Your task to perform on an android device: visit the assistant section in the google photos Image 0: 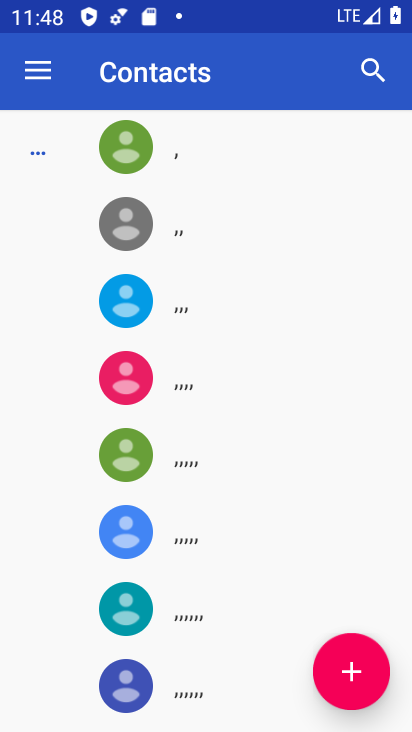
Step 0: press home button
Your task to perform on an android device: visit the assistant section in the google photos Image 1: 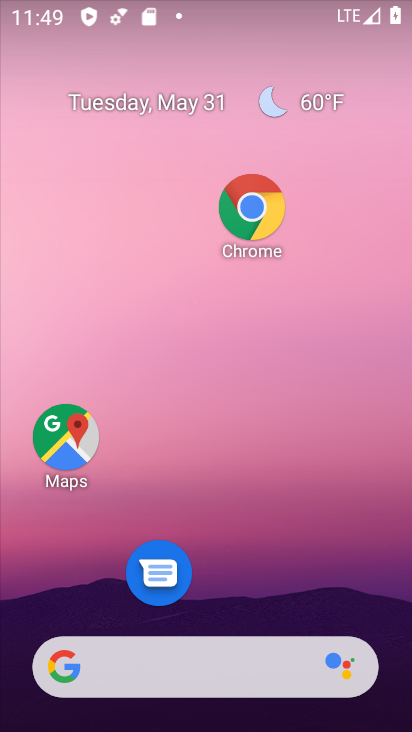
Step 1: drag from (229, 592) to (161, 171)
Your task to perform on an android device: visit the assistant section in the google photos Image 2: 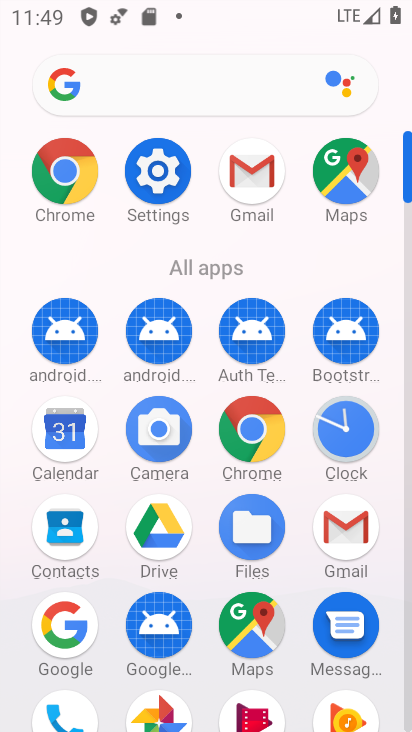
Step 2: drag from (194, 603) to (186, 379)
Your task to perform on an android device: visit the assistant section in the google photos Image 3: 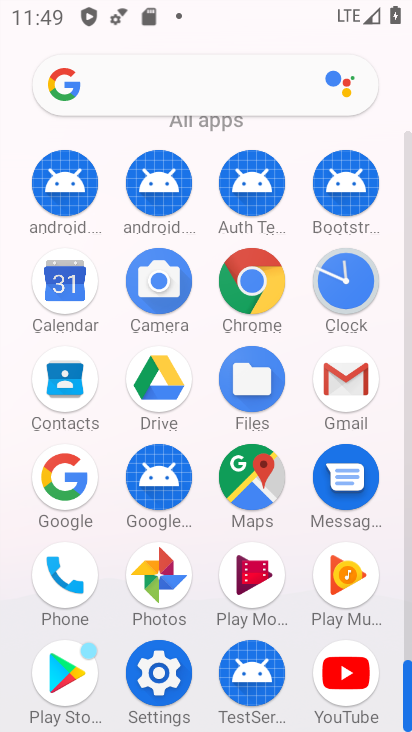
Step 3: click (163, 553)
Your task to perform on an android device: visit the assistant section in the google photos Image 4: 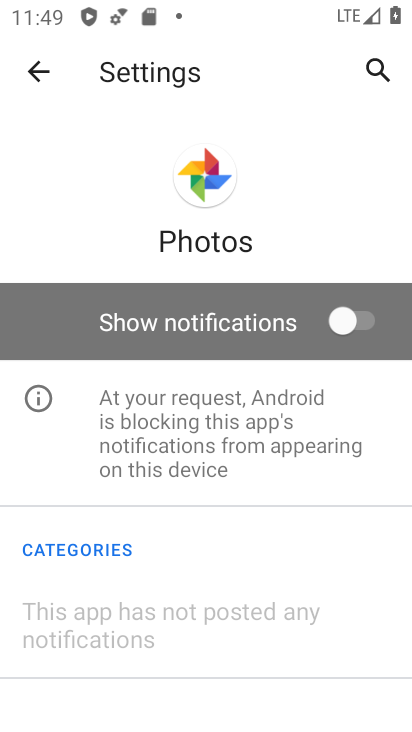
Step 4: click (35, 67)
Your task to perform on an android device: visit the assistant section in the google photos Image 5: 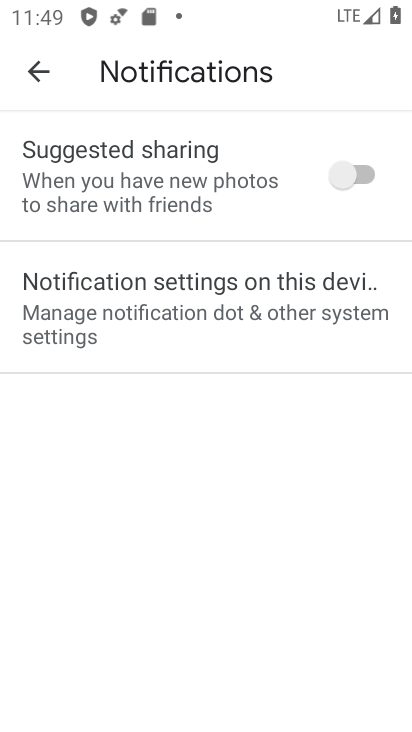
Step 5: click (34, 78)
Your task to perform on an android device: visit the assistant section in the google photos Image 6: 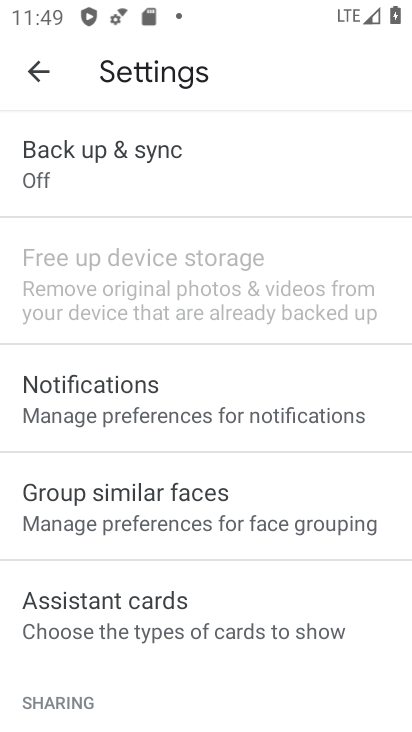
Step 6: click (34, 76)
Your task to perform on an android device: visit the assistant section in the google photos Image 7: 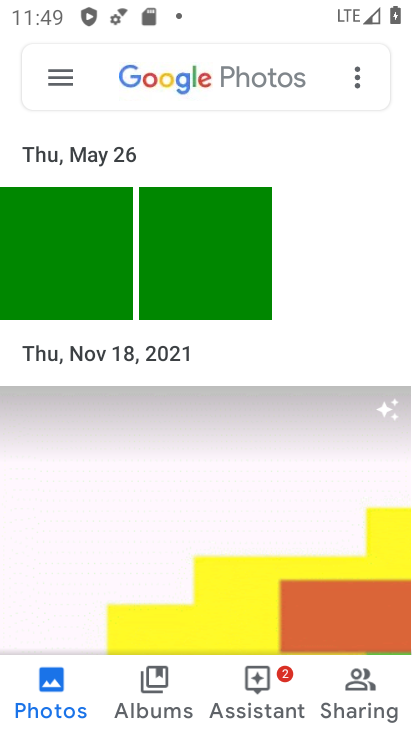
Step 7: click (235, 699)
Your task to perform on an android device: visit the assistant section in the google photos Image 8: 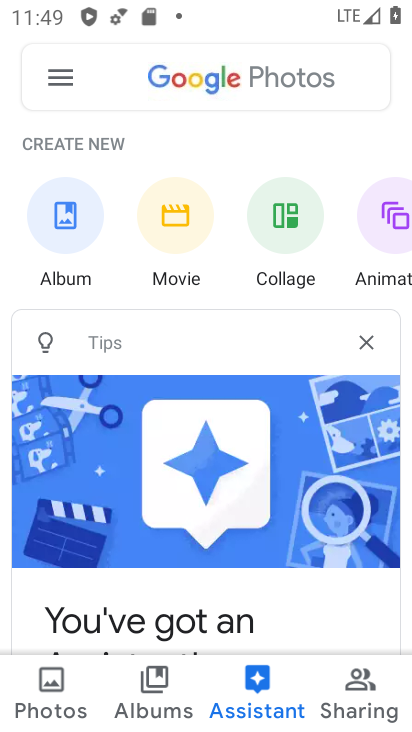
Step 8: task complete